Your task to perform on an android device: toggle wifi Image 0: 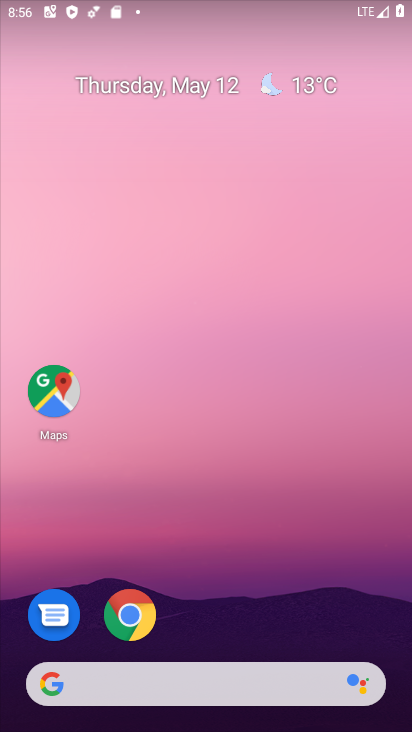
Step 0: click (221, 98)
Your task to perform on an android device: toggle wifi Image 1: 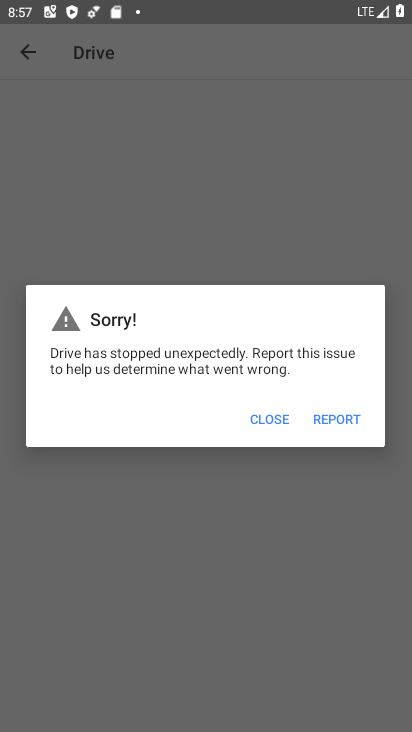
Step 1: press home button
Your task to perform on an android device: toggle wifi Image 2: 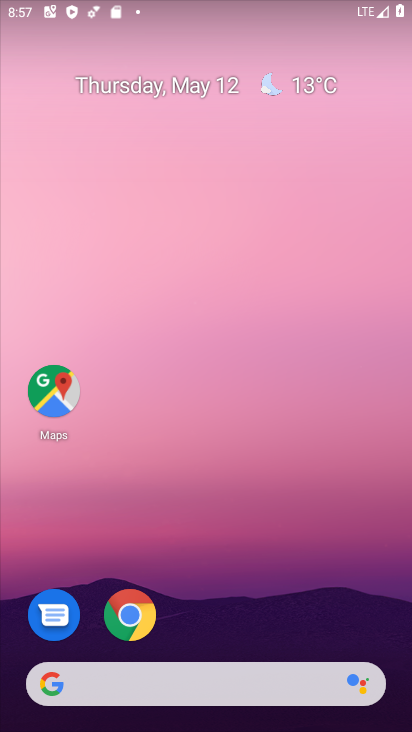
Step 2: drag from (227, 656) to (243, 20)
Your task to perform on an android device: toggle wifi Image 3: 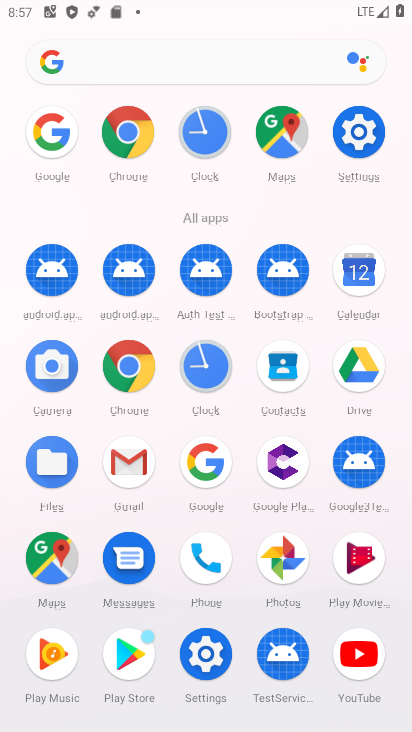
Step 3: click (352, 139)
Your task to perform on an android device: toggle wifi Image 4: 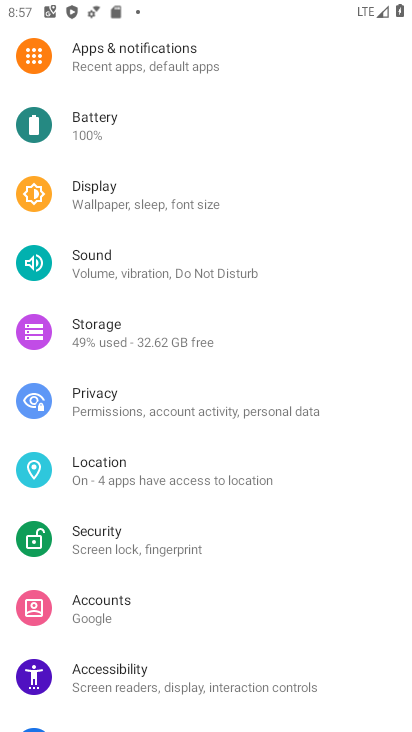
Step 4: drag from (152, 121) to (91, 617)
Your task to perform on an android device: toggle wifi Image 5: 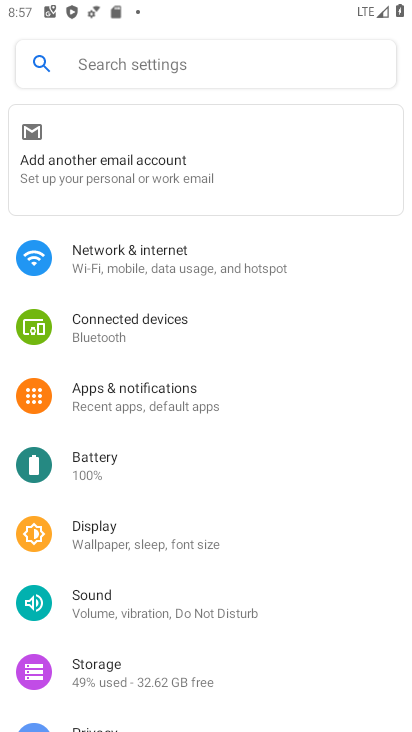
Step 5: click (114, 258)
Your task to perform on an android device: toggle wifi Image 6: 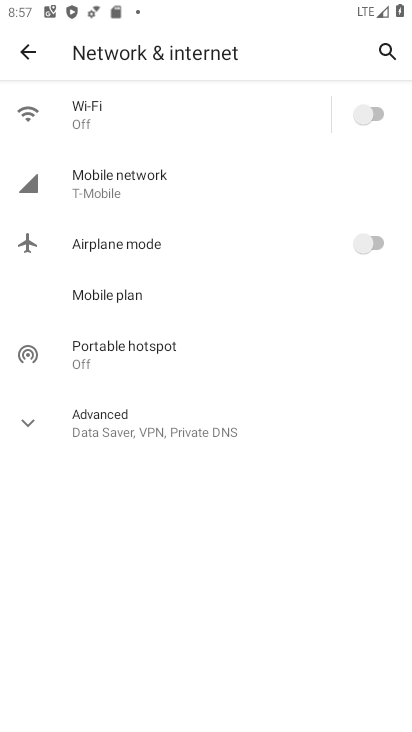
Step 6: click (134, 102)
Your task to perform on an android device: toggle wifi Image 7: 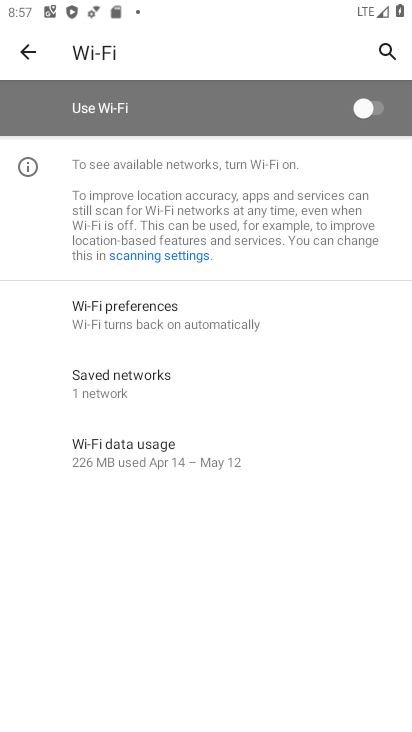
Step 7: click (344, 104)
Your task to perform on an android device: toggle wifi Image 8: 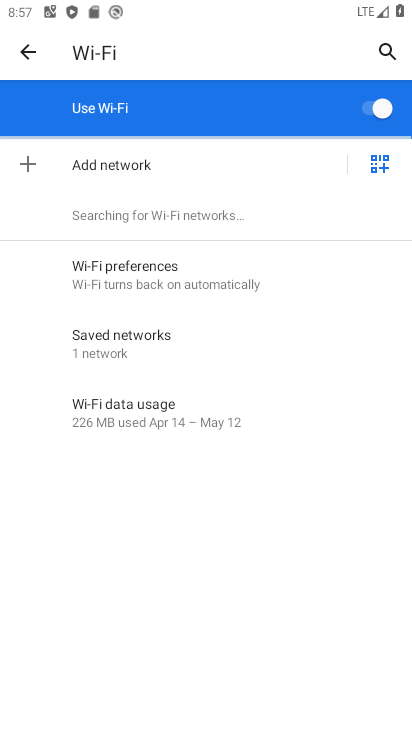
Step 8: task complete